Your task to perform on an android device: Open wifi settings Image 0: 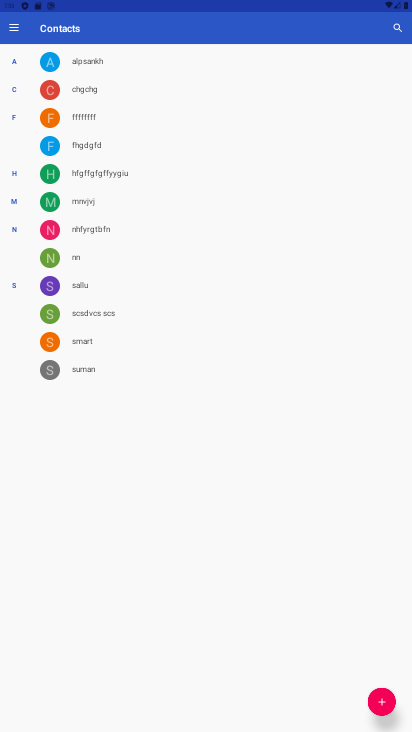
Step 0: press home button
Your task to perform on an android device: Open wifi settings Image 1: 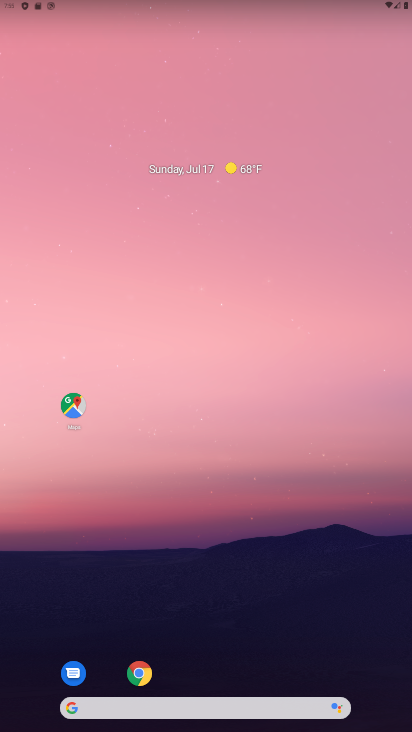
Step 1: drag from (289, 621) to (272, 5)
Your task to perform on an android device: Open wifi settings Image 2: 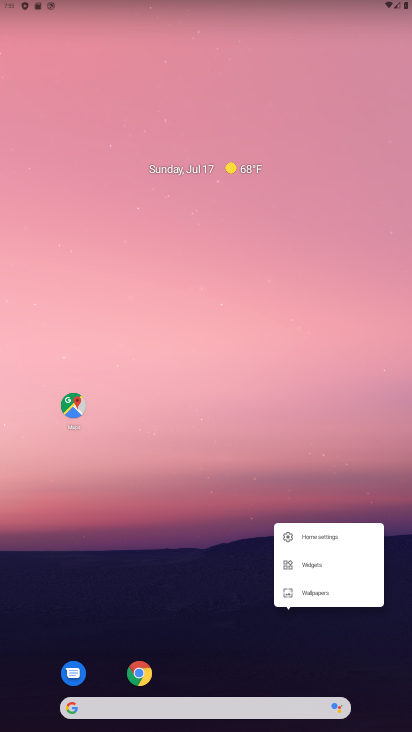
Step 2: drag from (220, 641) to (122, 14)
Your task to perform on an android device: Open wifi settings Image 3: 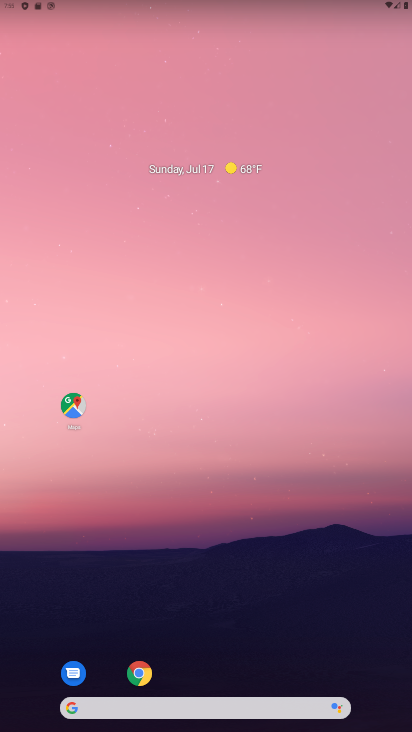
Step 3: drag from (314, 662) to (259, 56)
Your task to perform on an android device: Open wifi settings Image 4: 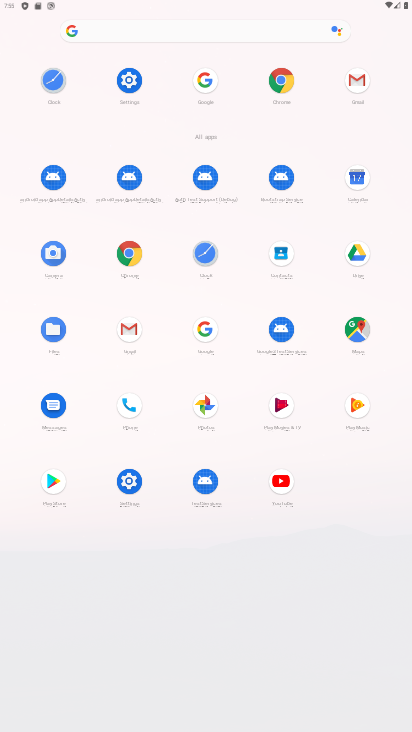
Step 4: click (133, 83)
Your task to perform on an android device: Open wifi settings Image 5: 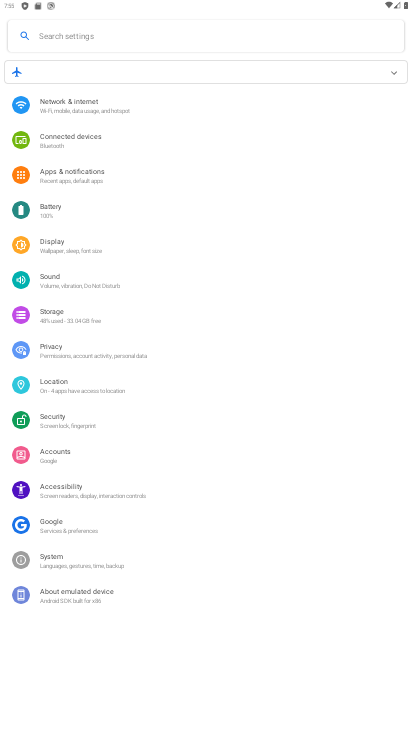
Step 5: click (93, 104)
Your task to perform on an android device: Open wifi settings Image 6: 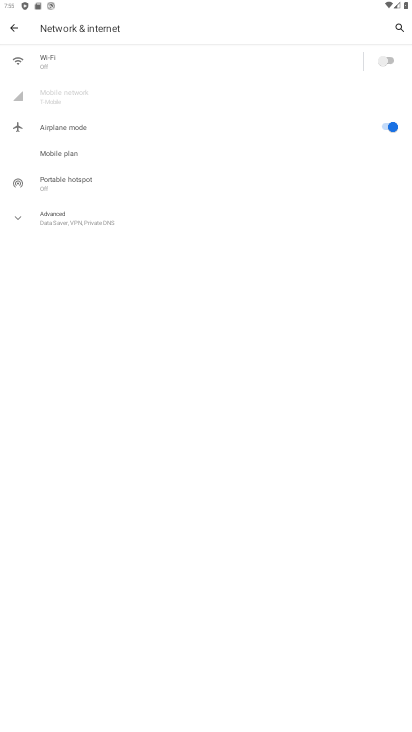
Step 6: click (71, 70)
Your task to perform on an android device: Open wifi settings Image 7: 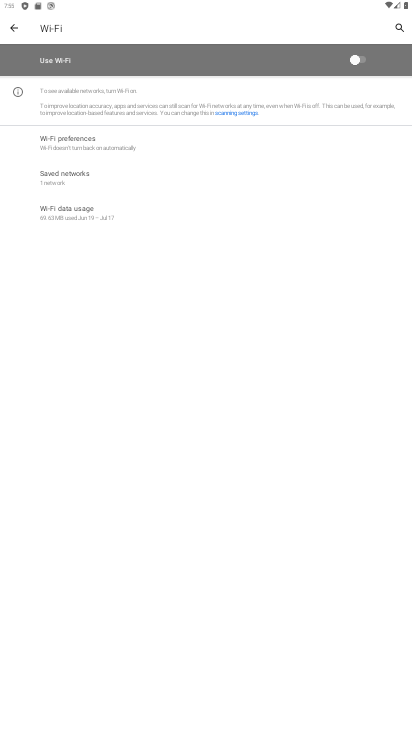
Step 7: task complete